Your task to perform on an android device: Open settings Image 0: 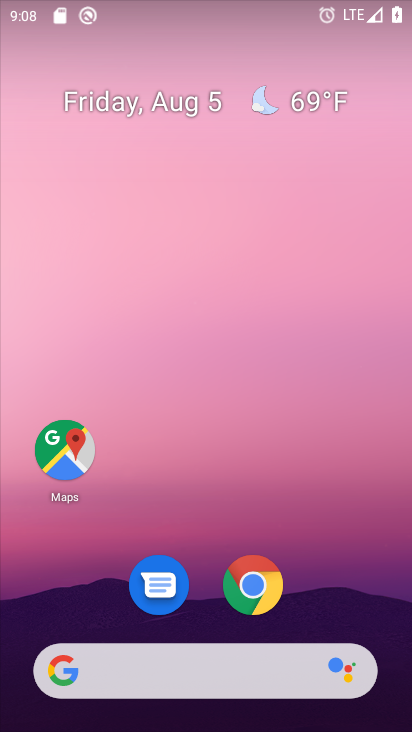
Step 0: drag from (204, 523) to (229, 23)
Your task to perform on an android device: Open settings Image 1: 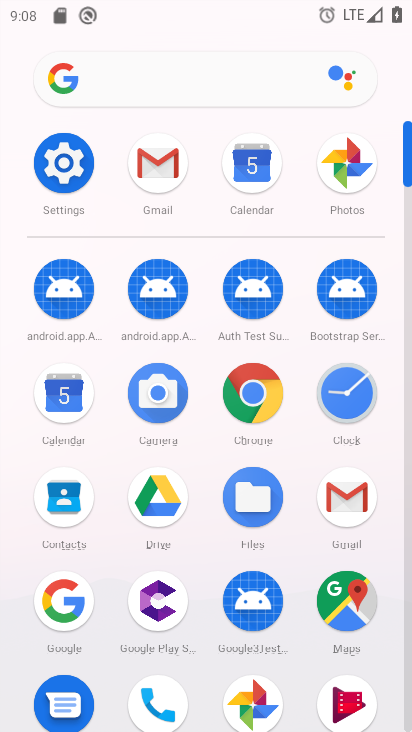
Step 1: click (61, 168)
Your task to perform on an android device: Open settings Image 2: 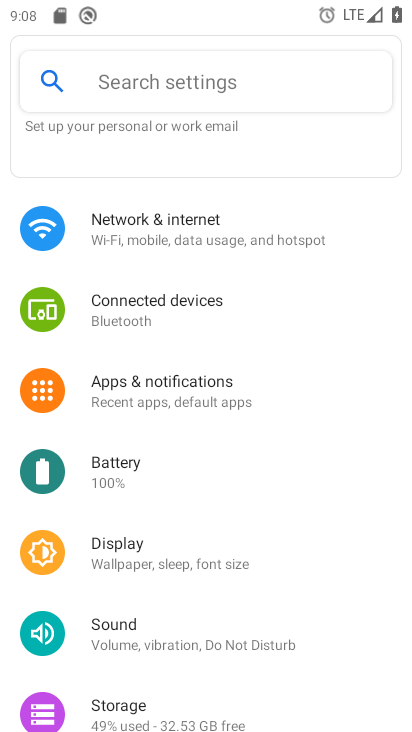
Step 2: task complete